Your task to perform on an android device: delete location history Image 0: 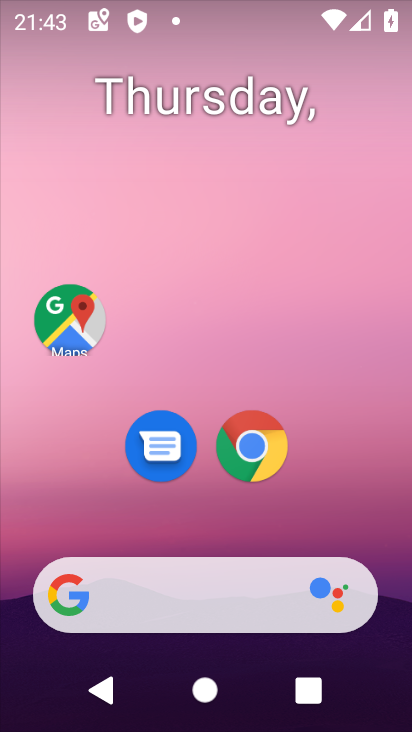
Step 0: click (83, 316)
Your task to perform on an android device: delete location history Image 1: 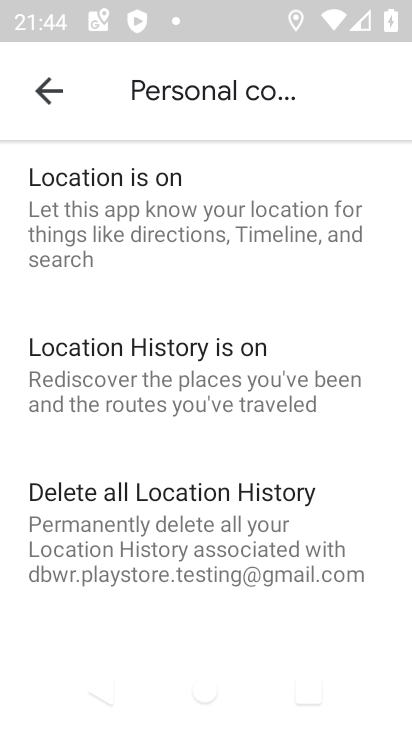
Step 1: click (138, 541)
Your task to perform on an android device: delete location history Image 2: 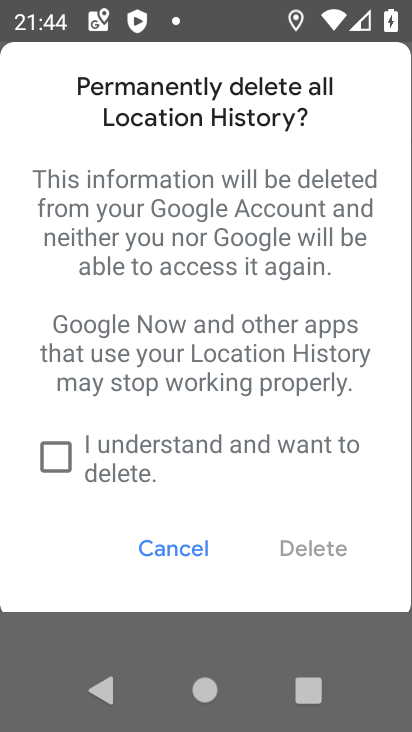
Step 2: click (47, 458)
Your task to perform on an android device: delete location history Image 3: 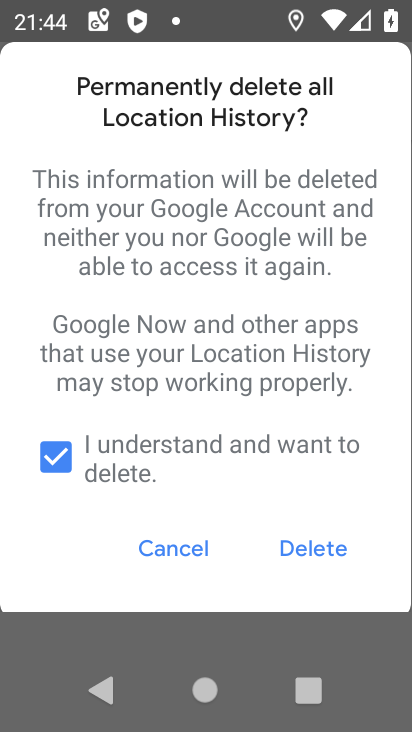
Step 3: click (305, 552)
Your task to perform on an android device: delete location history Image 4: 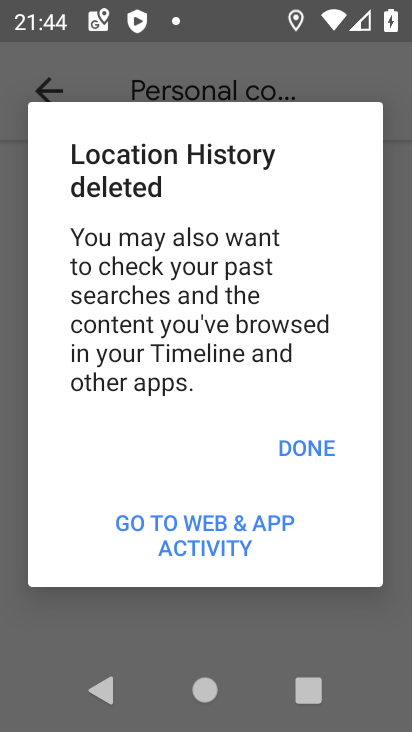
Step 4: click (313, 449)
Your task to perform on an android device: delete location history Image 5: 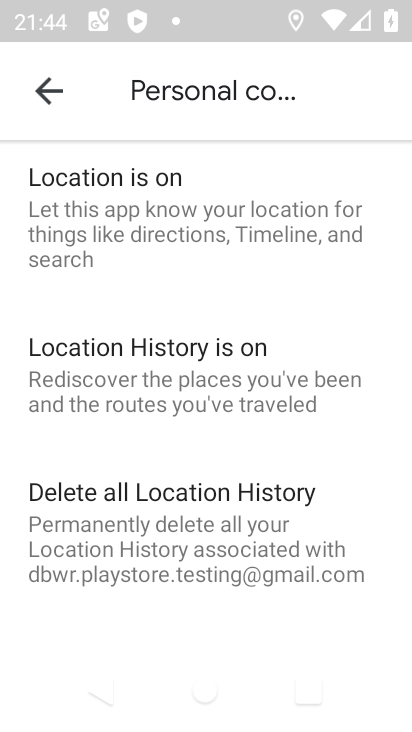
Step 5: task complete